Your task to perform on an android device: Open accessibility settings Image 0: 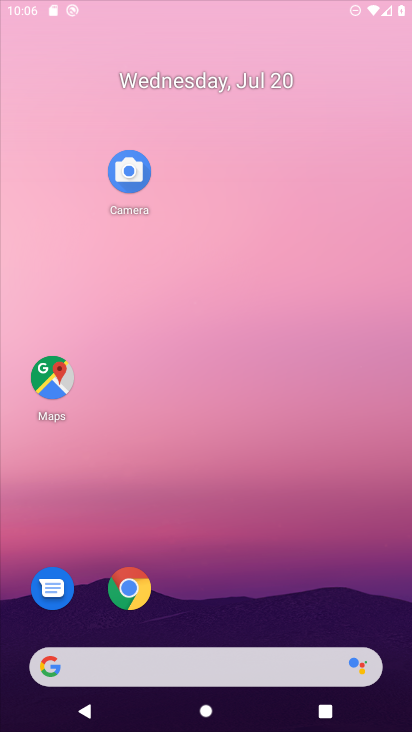
Step 0: press home button
Your task to perform on an android device: Open accessibility settings Image 1: 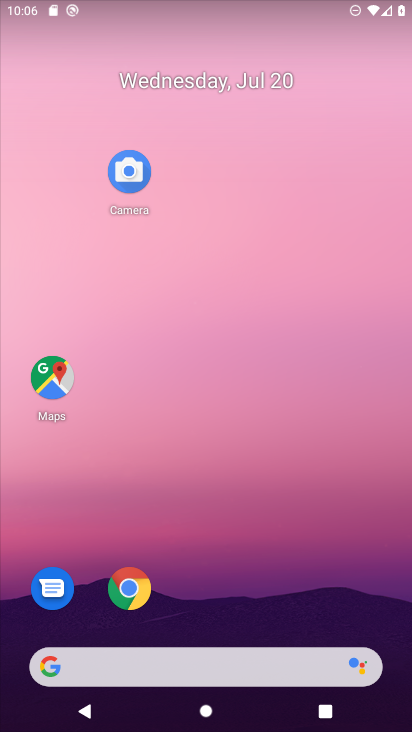
Step 1: drag from (233, 630) to (262, 118)
Your task to perform on an android device: Open accessibility settings Image 2: 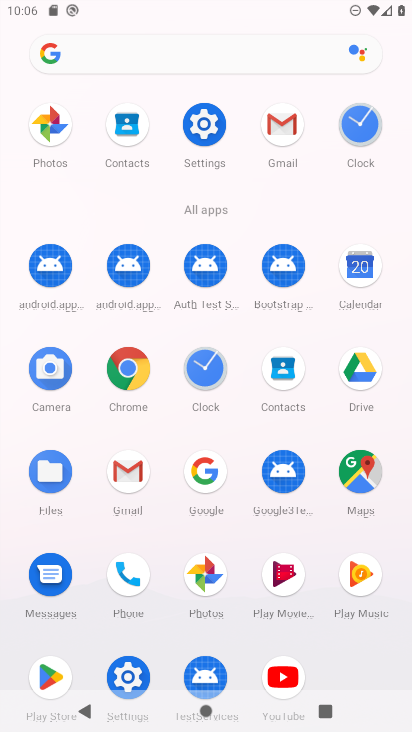
Step 2: click (208, 111)
Your task to perform on an android device: Open accessibility settings Image 3: 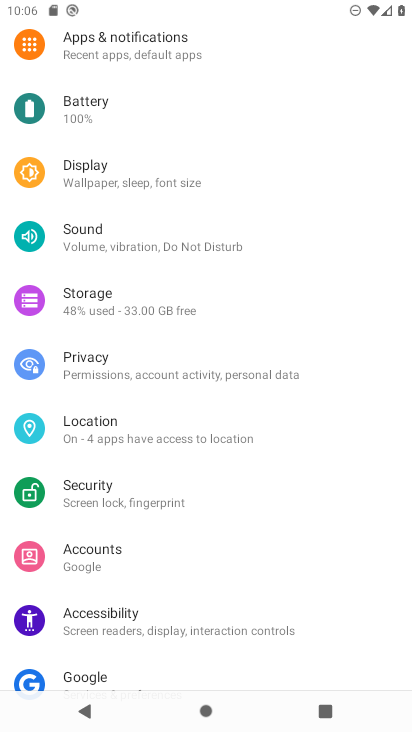
Step 3: click (94, 616)
Your task to perform on an android device: Open accessibility settings Image 4: 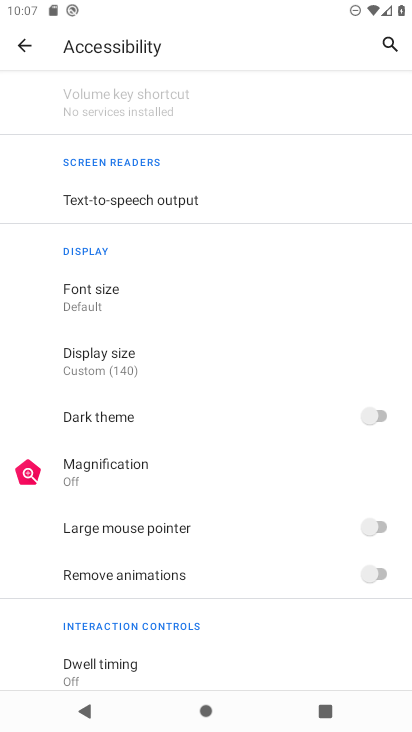
Step 4: task complete